Your task to perform on an android device: empty trash in the gmail app Image 0: 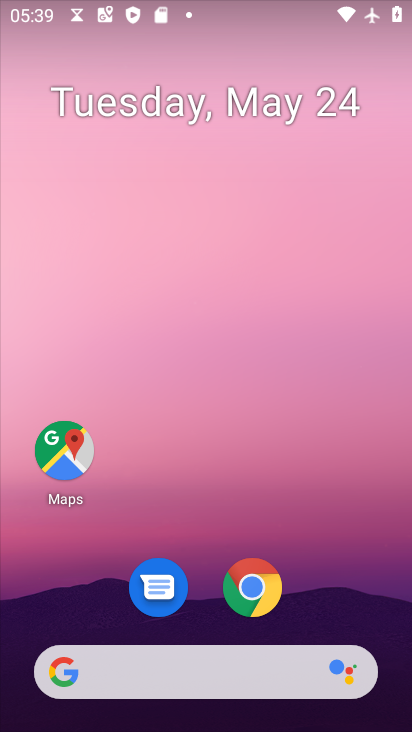
Step 0: drag from (315, 310) to (191, 46)
Your task to perform on an android device: empty trash in the gmail app Image 1: 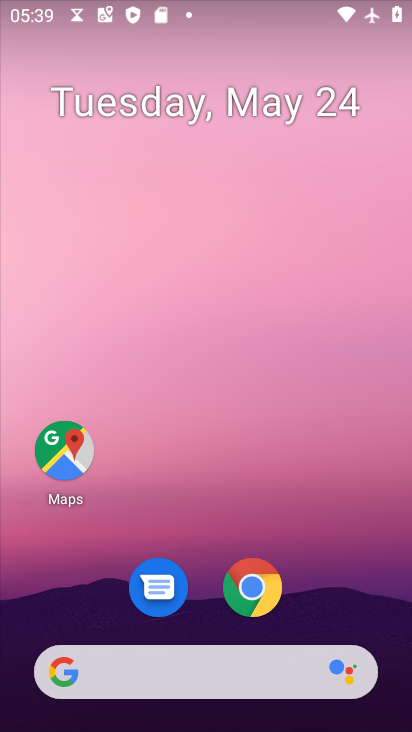
Step 1: drag from (338, 560) to (234, 32)
Your task to perform on an android device: empty trash in the gmail app Image 2: 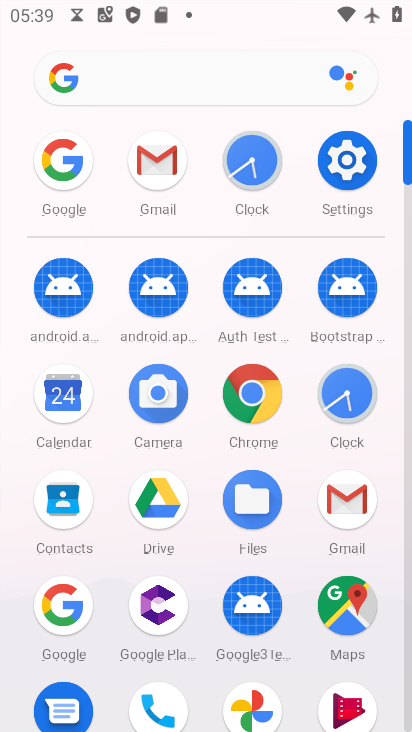
Step 2: click (160, 168)
Your task to perform on an android device: empty trash in the gmail app Image 3: 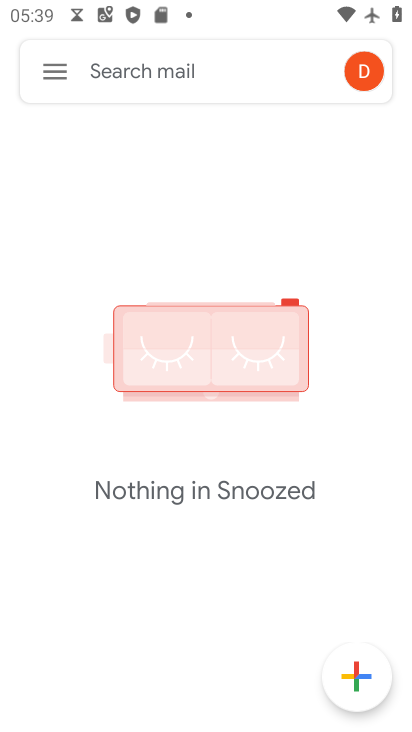
Step 3: click (51, 78)
Your task to perform on an android device: empty trash in the gmail app Image 4: 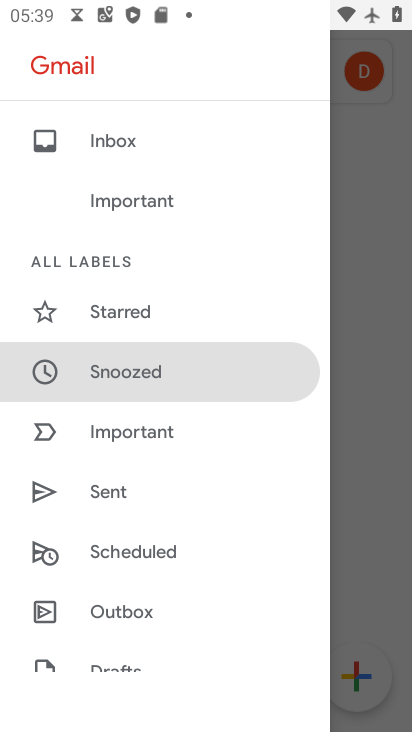
Step 4: drag from (252, 474) to (215, 42)
Your task to perform on an android device: empty trash in the gmail app Image 5: 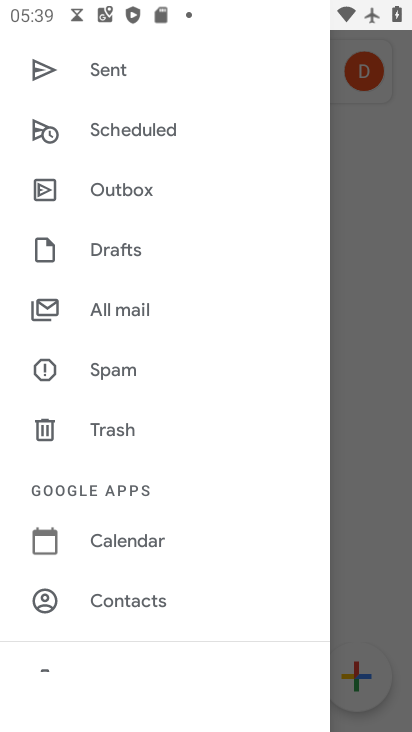
Step 5: click (172, 429)
Your task to perform on an android device: empty trash in the gmail app Image 6: 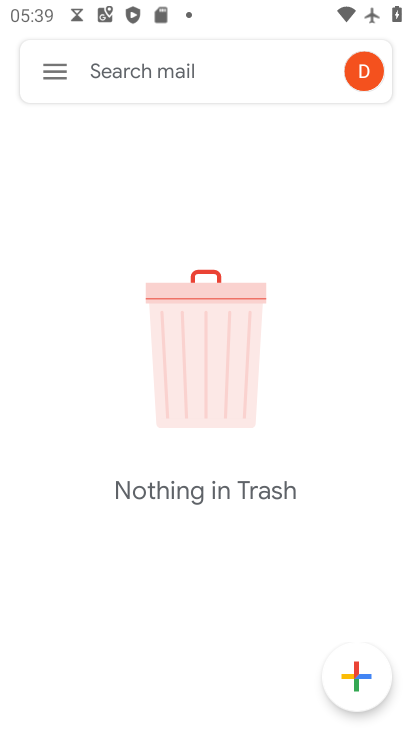
Step 6: task complete